Your task to perform on an android device: turn on the 12-hour format for clock Image 0: 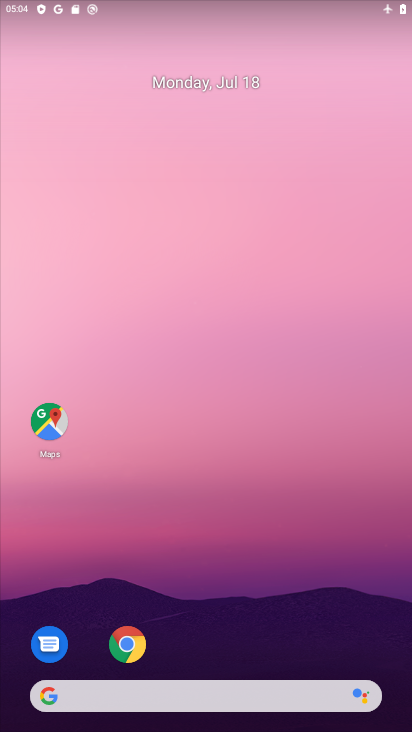
Step 0: press home button
Your task to perform on an android device: turn on the 12-hour format for clock Image 1: 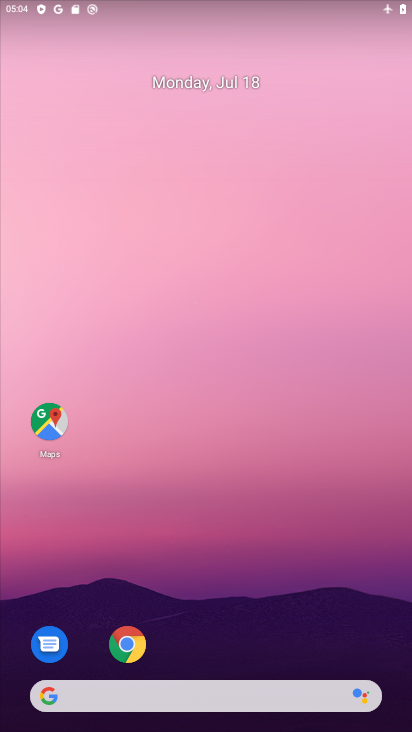
Step 1: drag from (261, 539) to (251, 51)
Your task to perform on an android device: turn on the 12-hour format for clock Image 2: 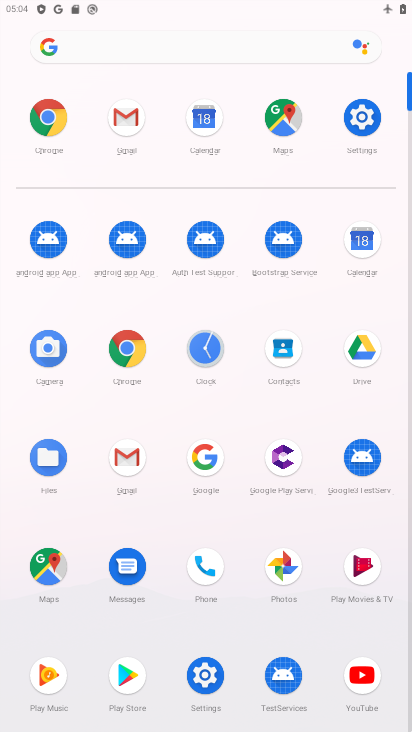
Step 2: click (212, 348)
Your task to perform on an android device: turn on the 12-hour format for clock Image 3: 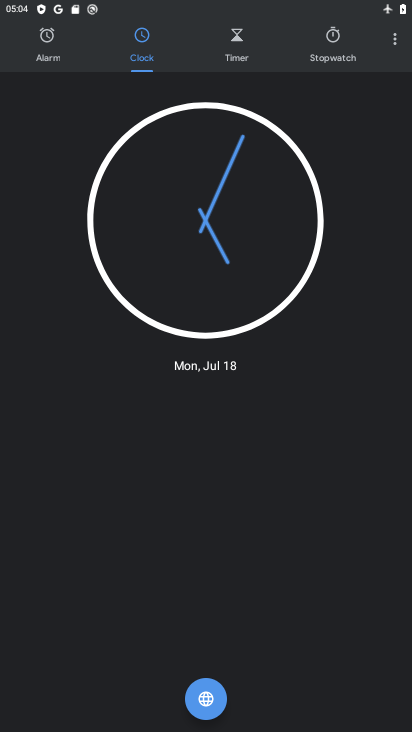
Step 3: click (398, 36)
Your task to perform on an android device: turn on the 12-hour format for clock Image 4: 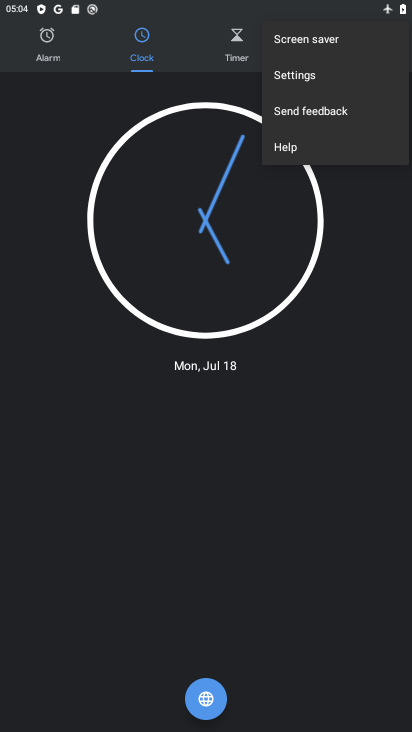
Step 4: click (313, 81)
Your task to perform on an android device: turn on the 12-hour format for clock Image 5: 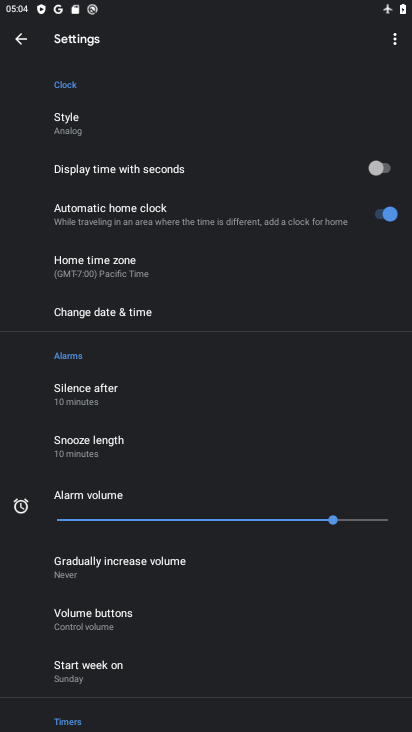
Step 5: click (111, 316)
Your task to perform on an android device: turn on the 12-hour format for clock Image 6: 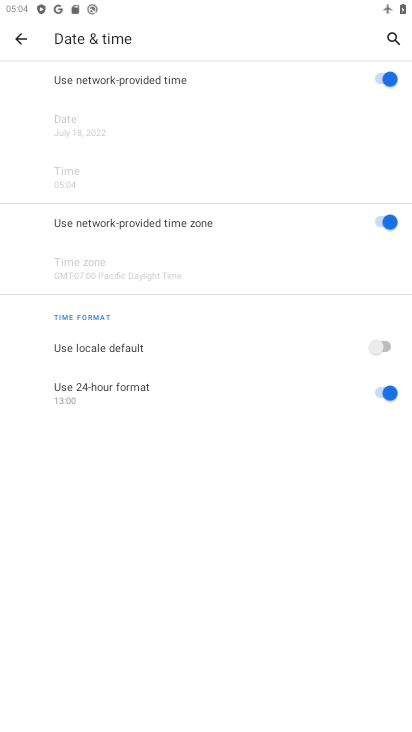
Step 6: click (389, 394)
Your task to perform on an android device: turn on the 12-hour format for clock Image 7: 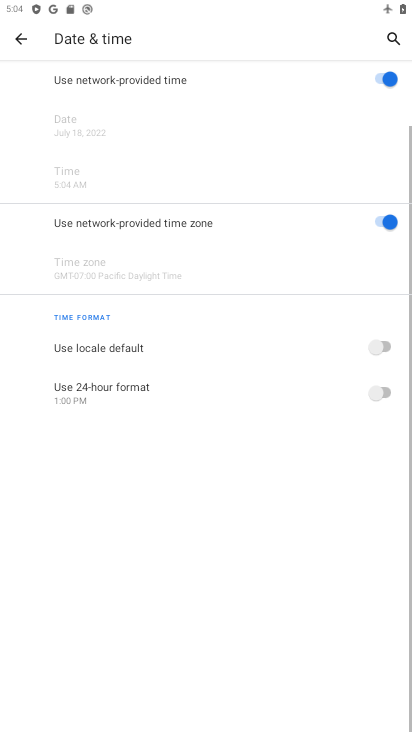
Step 7: click (387, 345)
Your task to perform on an android device: turn on the 12-hour format for clock Image 8: 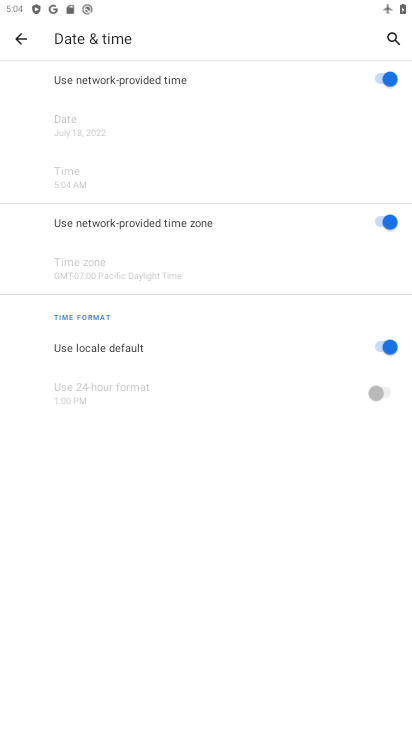
Step 8: task complete